Your task to perform on an android device: search for starred emails in the gmail app Image 0: 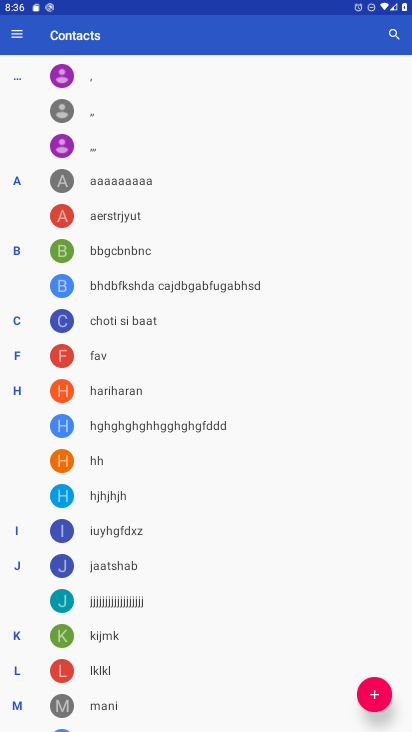
Step 0: press home button
Your task to perform on an android device: search for starred emails in the gmail app Image 1: 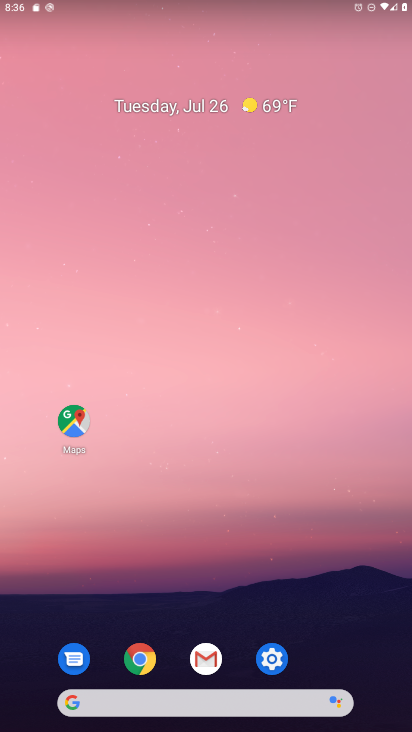
Step 1: drag from (232, 717) to (230, 286)
Your task to perform on an android device: search for starred emails in the gmail app Image 2: 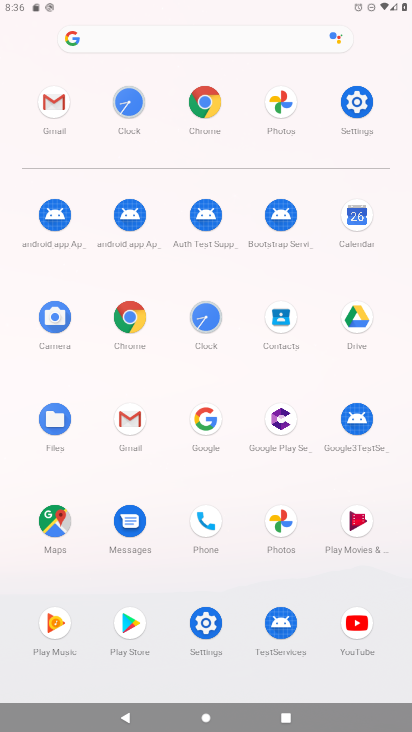
Step 2: click (48, 112)
Your task to perform on an android device: search for starred emails in the gmail app Image 3: 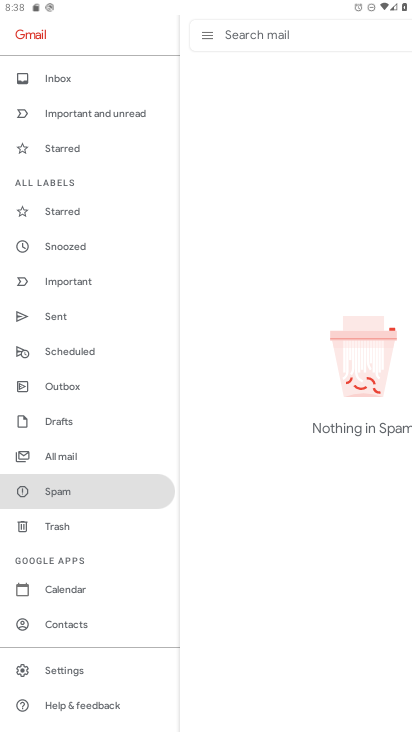
Step 3: click (90, 214)
Your task to perform on an android device: search for starred emails in the gmail app Image 4: 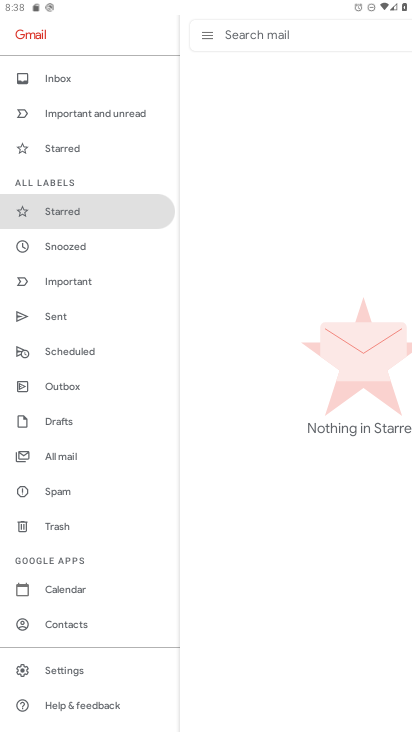
Step 4: task complete